Your task to perform on an android device: turn on the 12-hour format for clock Image 0: 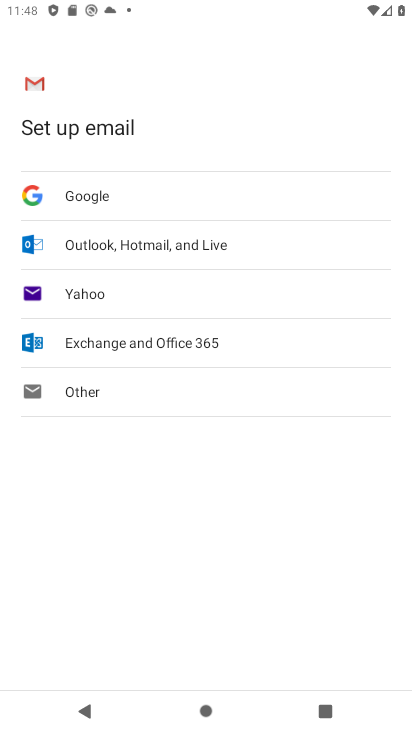
Step 0: press home button
Your task to perform on an android device: turn on the 12-hour format for clock Image 1: 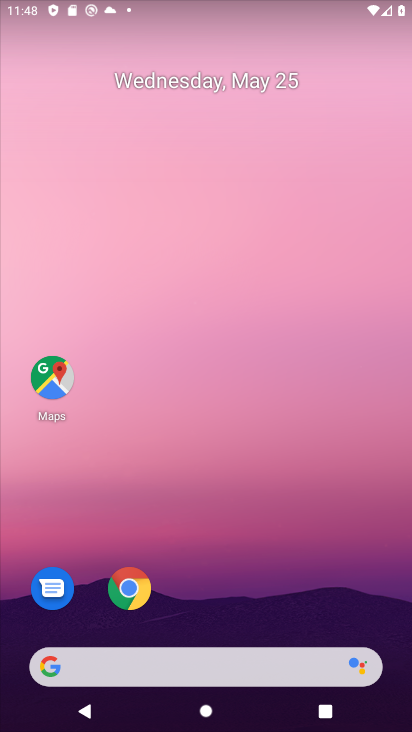
Step 1: drag from (167, 609) to (194, 186)
Your task to perform on an android device: turn on the 12-hour format for clock Image 2: 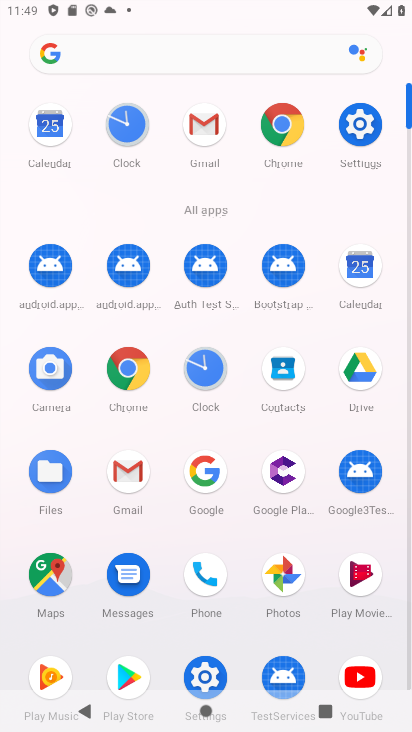
Step 2: click (201, 370)
Your task to perform on an android device: turn on the 12-hour format for clock Image 3: 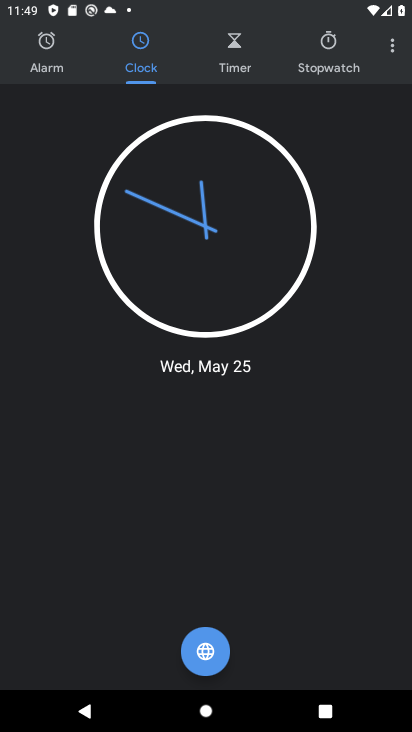
Step 3: click (393, 48)
Your task to perform on an android device: turn on the 12-hour format for clock Image 4: 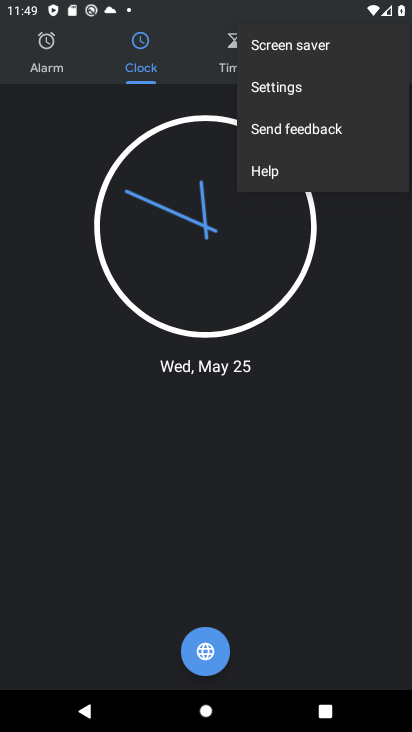
Step 4: click (300, 85)
Your task to perform on an android device: turn on the 12-hour format for clock Image 5: 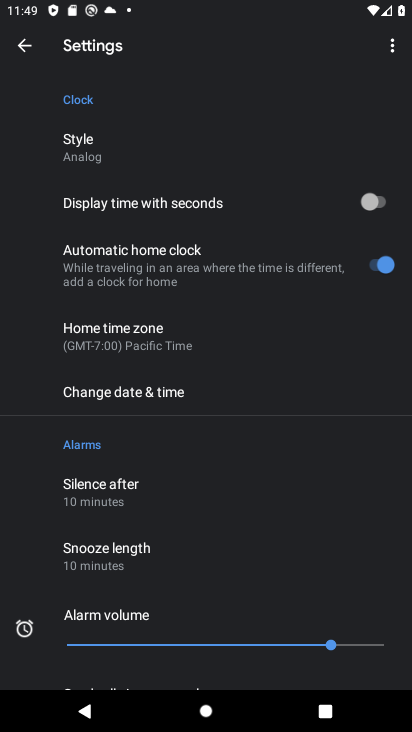
Step 5: click (138, 393)
Your task to perform on an android device: turn on the 12-hour format for clock Image 6: 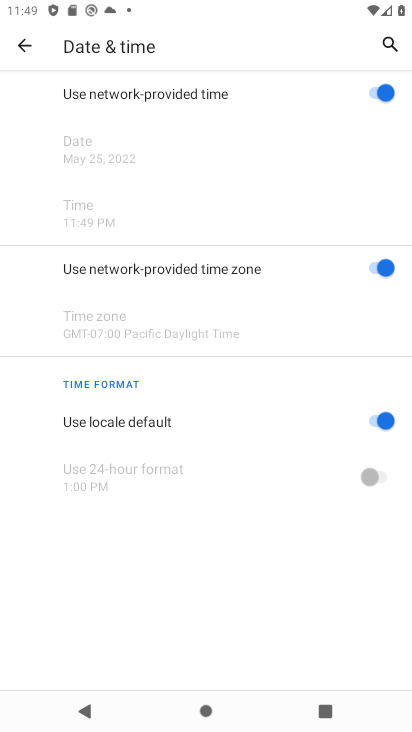
Step 6: task complete